Your task to perform on an android device: Open Google Image 0: 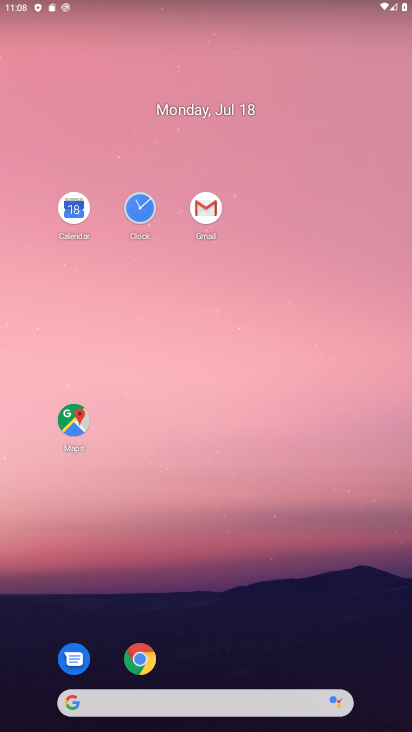
Step 0: drag from (261, 631) to (340, 194)
Your task to perform on an android device: Open Google Image 1: 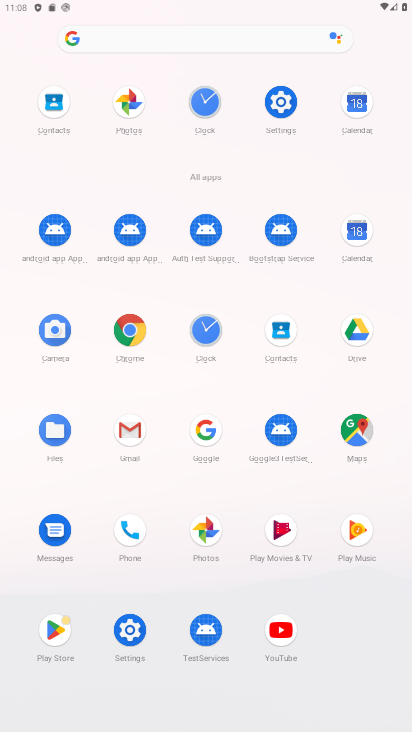
Step 1: drag from (203, 435) to (98, 301)
Your task to perform on an android device: Open Google Image 2: 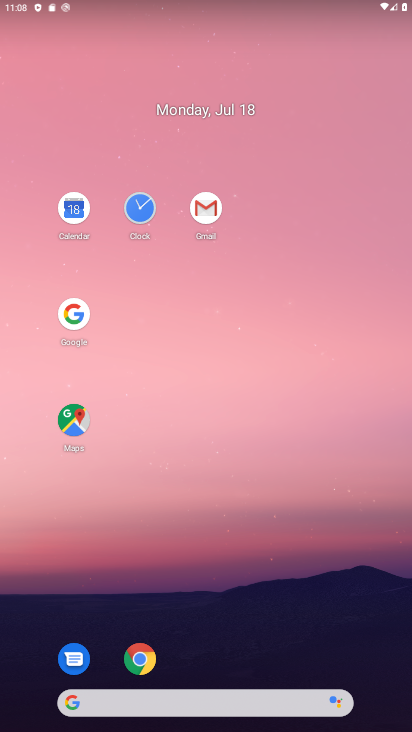
Step 2: click (67, 303)
Your task to perform on an android device: Open Google Image 3: 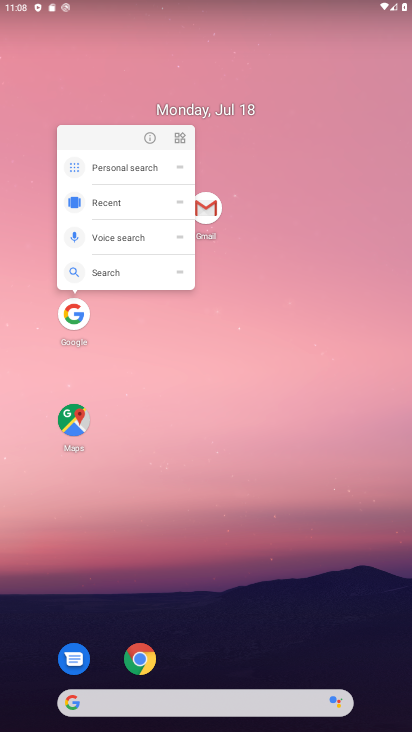
Step 3: click (84, 319)
Your task to perform on an android device: Open Google Image 4: 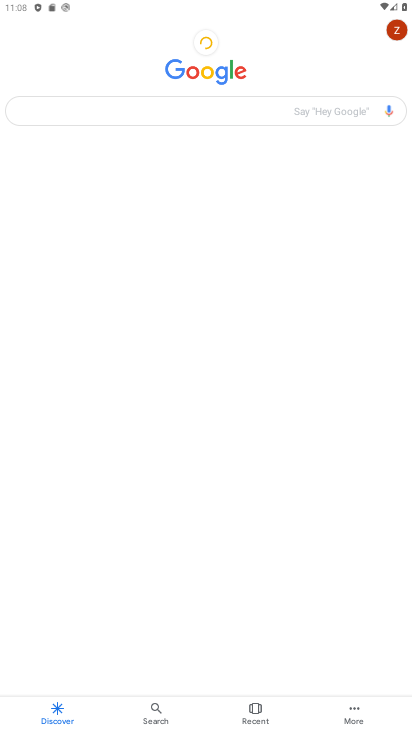
Step 4: task complete